Your task to perform on an android device: Go to internet settings Image 0: 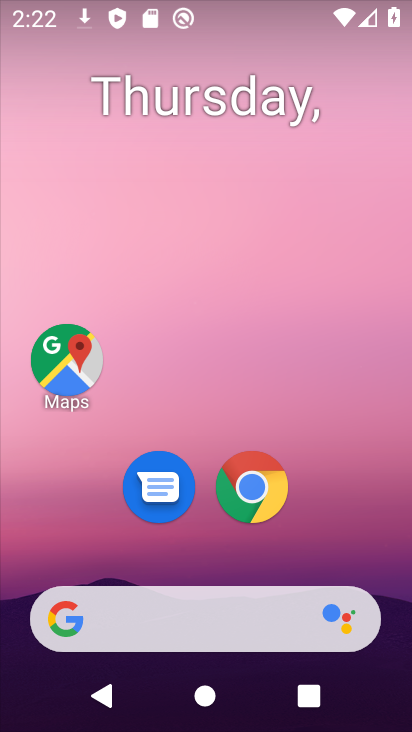
Step 0: drag from (304, 499) to (290, 141)
Your task to perform on an android device: Go to internet settings Image 1: 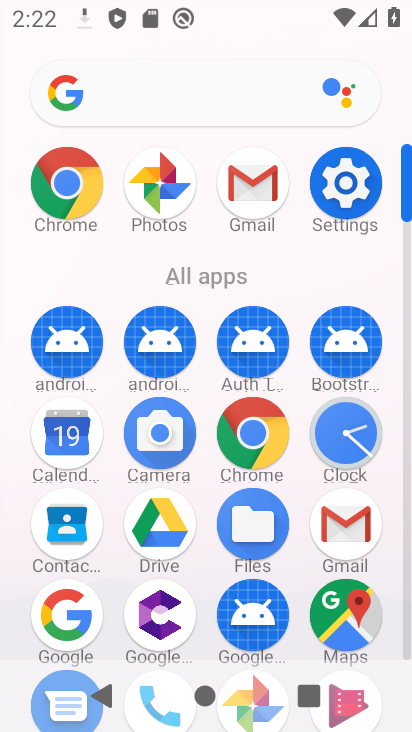
Step 1: click (363, 171)
Your task to perform on an android device: Go to internet settings Image 2: 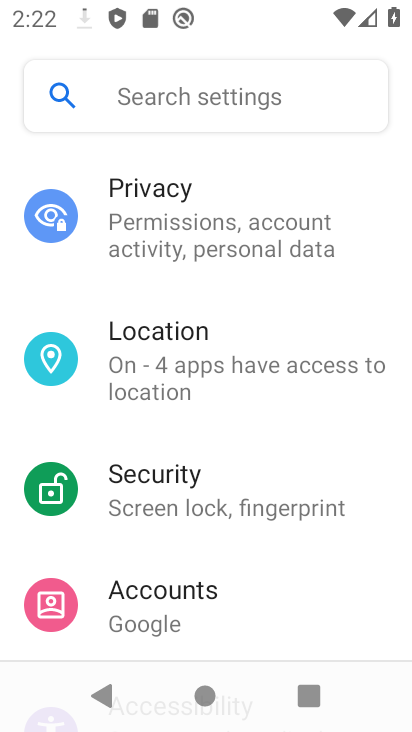
Step 2: drag from (218, 259) to (252, 657)
Your task to perform on an android device: Go to internet settings Image 3: 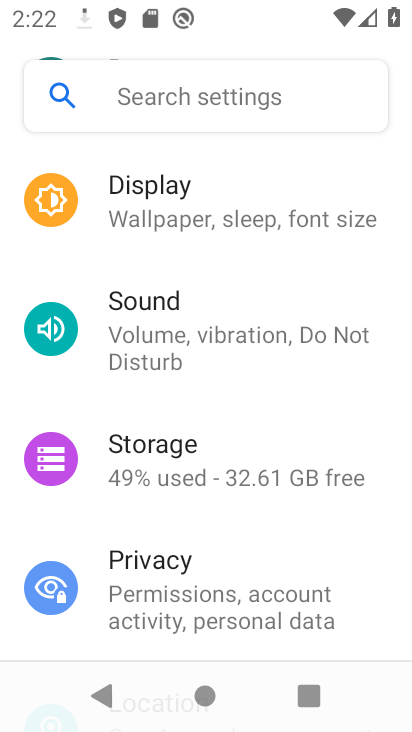
Step 3: drag from (333, 313) to (375, 621)
Your task to perform on an android device: Go to internet settings Image 4: 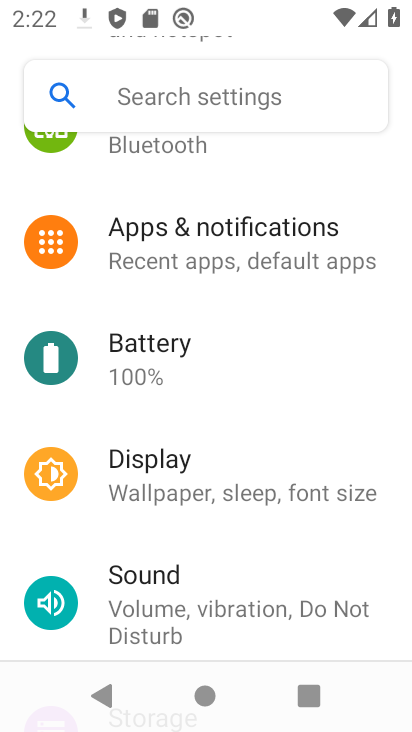
Step 4: drag from (265, 250) to (367, 571)
Your task to perform on an android device: Go to internet settings Image 5: 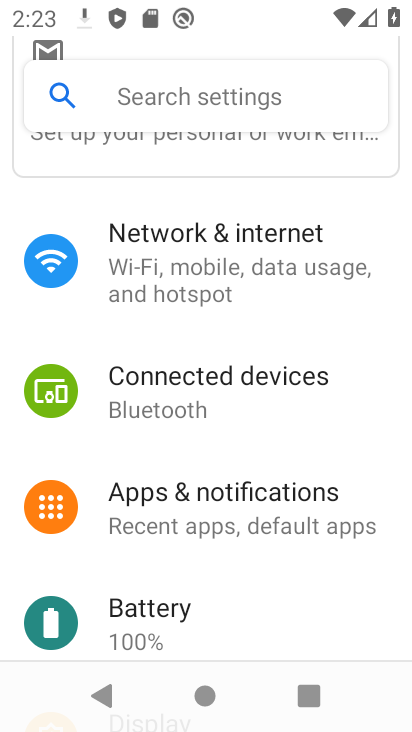
Step 5: click (273, 270)
Your task to perform on an android device: Go to internet settings Image 6: 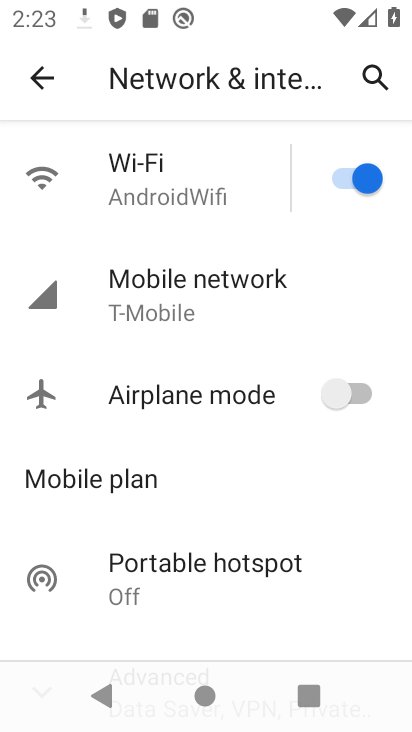
Step 6: task complete